Your task to perform on an android device: make emails show in primary in the gmail app Image 0: 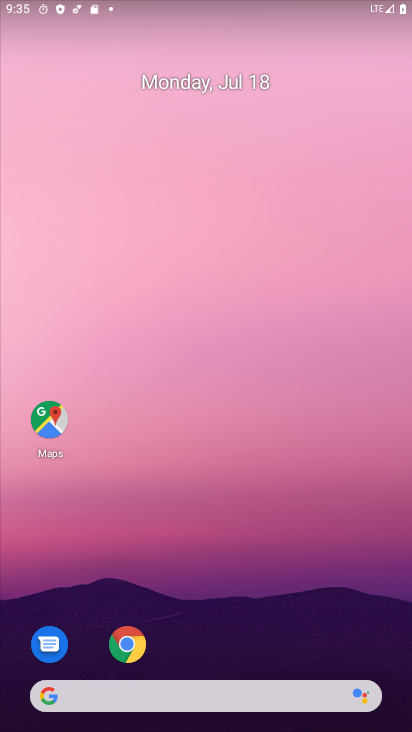
Step 0: press home button
Your task to perform on an android device: make emails show in primary in the gmail app Image 1: 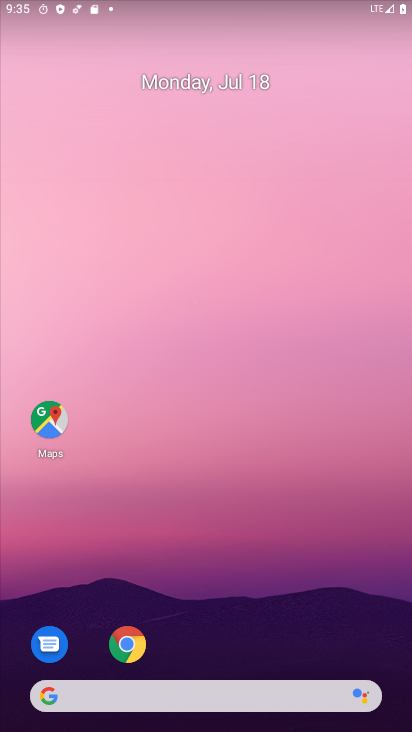
Step 1: drag from (199, 648) to (235, 24)
Your task to perform on an android device: make emails show in primary in the gmail app Image 2: 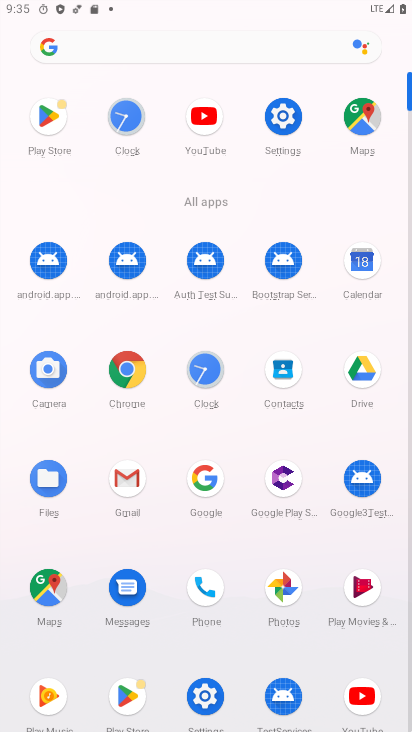
Step 2: click (130, 473)
Your task to perform on an android device: make emails show in primary in the gmail app Image 3: 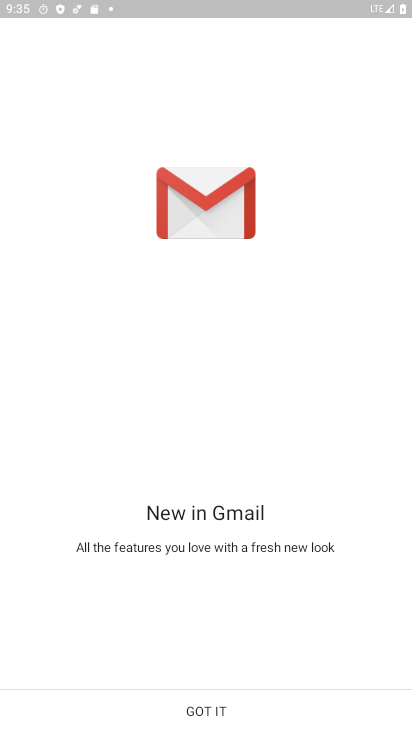
Step 3: click (213, 708)
Your task to perform on an android device: make emails show in primary in the gmail app Image 4: 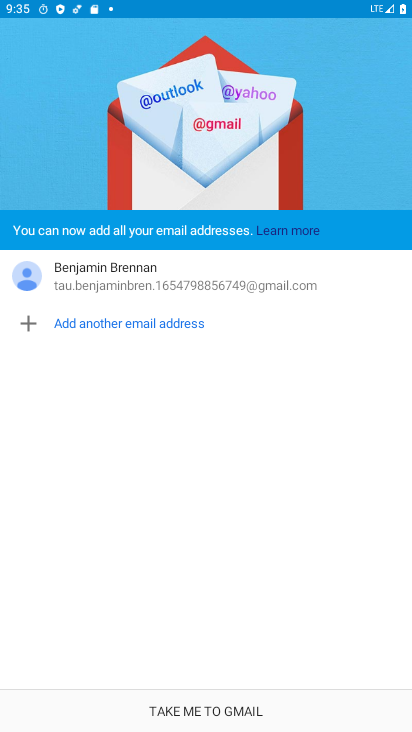
Step 4: click (198, 712)
Your task to perform on an android device: make emails show in primary in the gmail app Image 5: 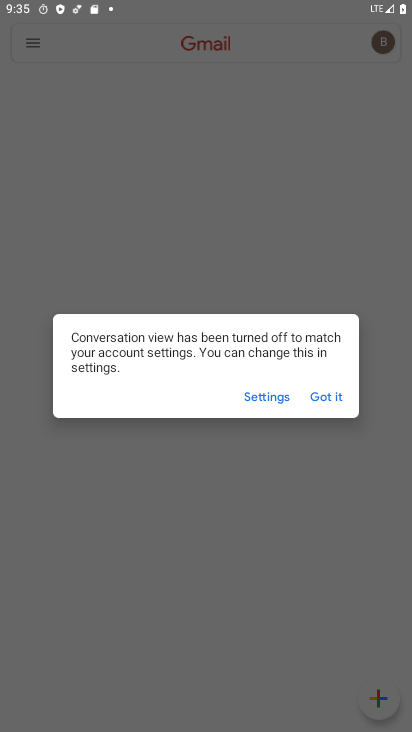
Step 5: click (329, 399)
Your task to perform on an android device: make emails show in primary in the gmail app Image 6: 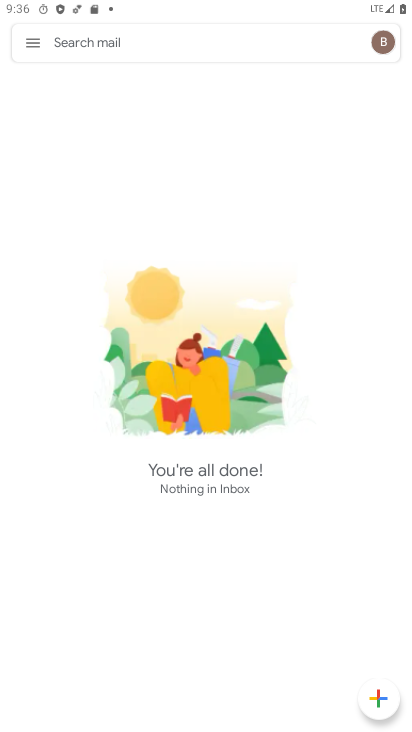
Step 6: click (28, 40)
Your task to perform on an android device: make emails show in primary in the gmail app Image 7: 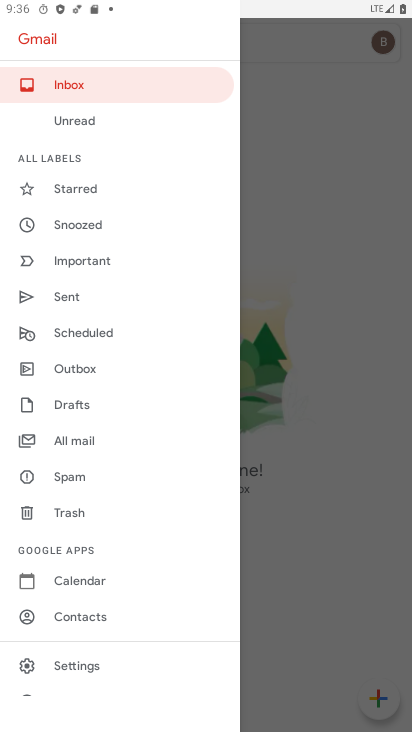
Step 7: click (104, 662)
Your task to perform on an android device: make emails show in primary in the gmail app Image 8: 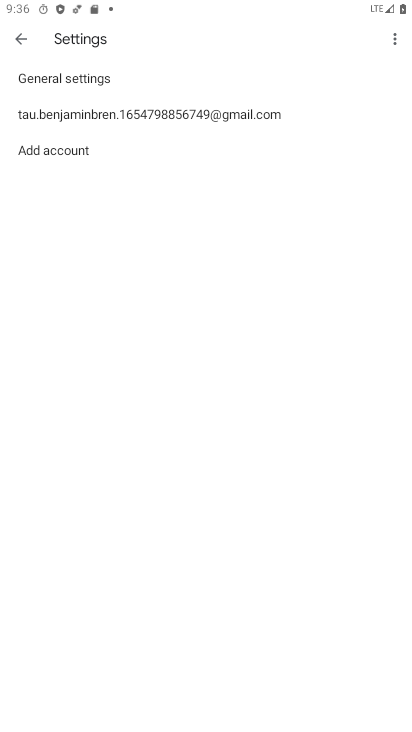
Step 8: click (132, 114)
Your task to perform on an android device: make emails show in primary in the gmail app Image 9: 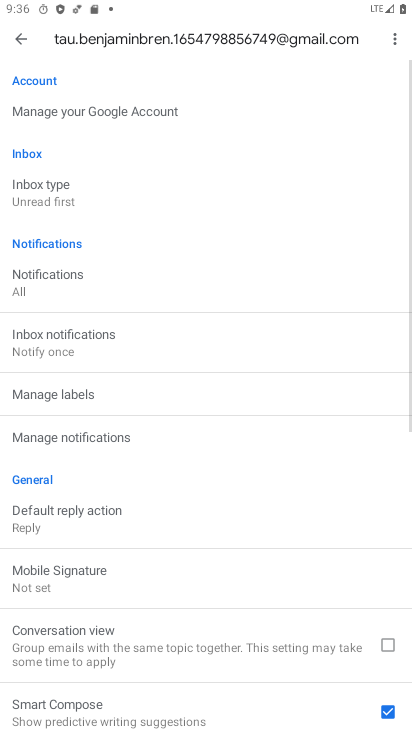
Step 9: click (77, 195)
Your task to perform on an android device: make emails show in primary in the gmail app Image 10: 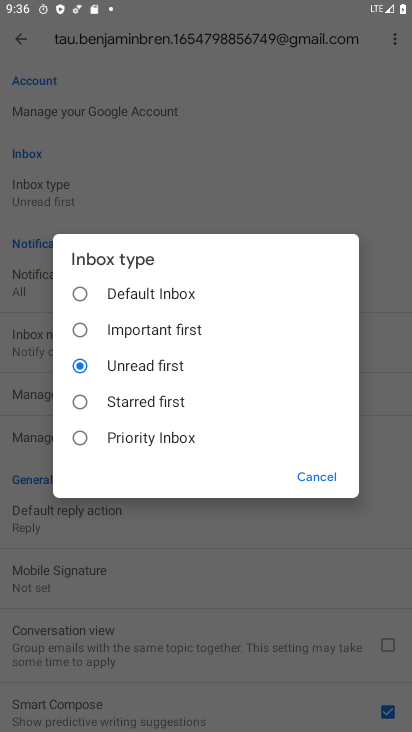
Step 10: click (82, 289)
Your task to perform on an android device: make emails show in primary in the gmail app Image 11: 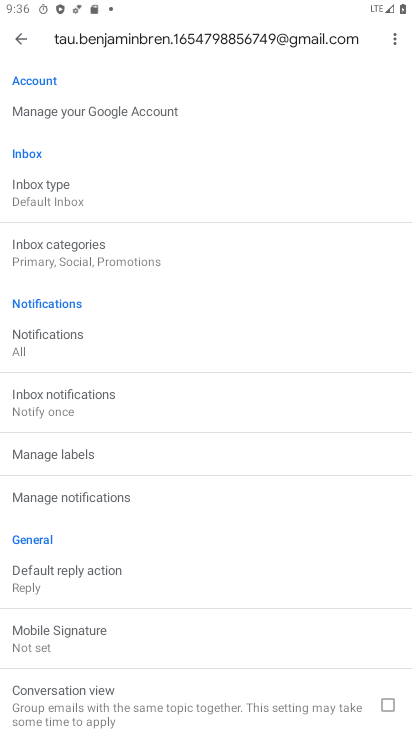
Step 11: task complete